Your task to perform on an android device: Open location settings Image 0: 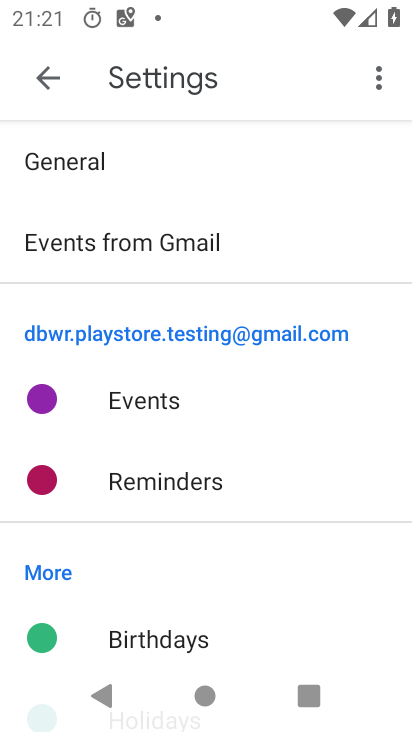
Step 0: press home button
Your task to perform on an android device: Open location settings Image 1: 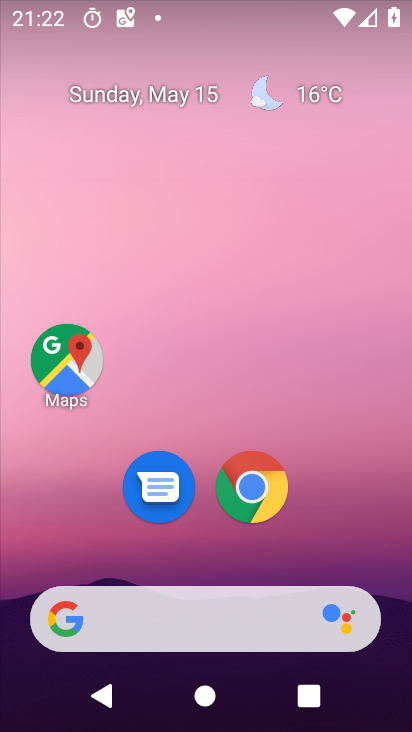
Step 1: drag from (394, 636) to (351, 192)
Your task to perform on an android device: Open location settings Image 2: 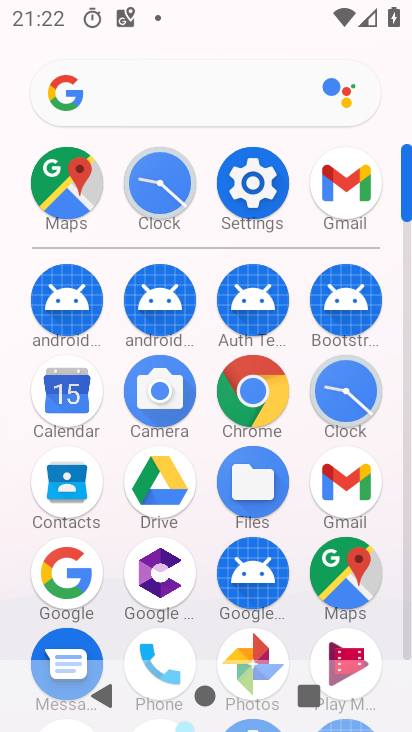
Step 2: click (247, 195)
Your task to perform on an android device: Open location settings Image 3: 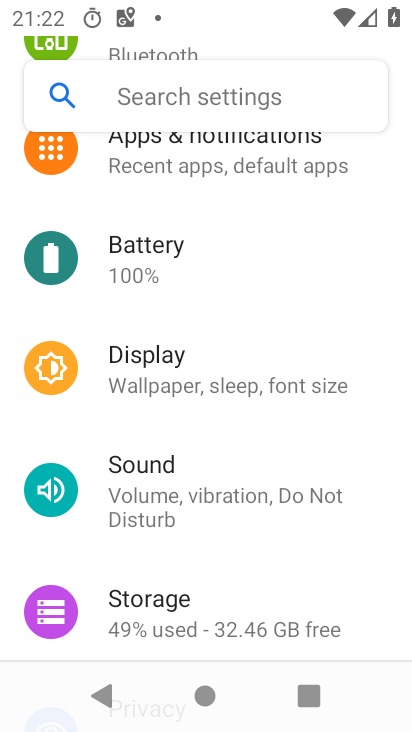
Step 3: drag from (375, 632) to (396, 295)
Your task to perform on an android device: Open location settings Image 4: 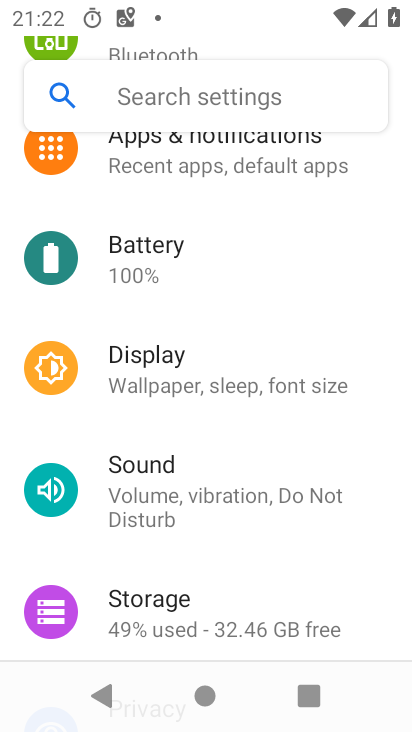
Step 4: drag from (365, 631) to (365, 367)
Your task to perform on an android device: Open location settings Image 5: 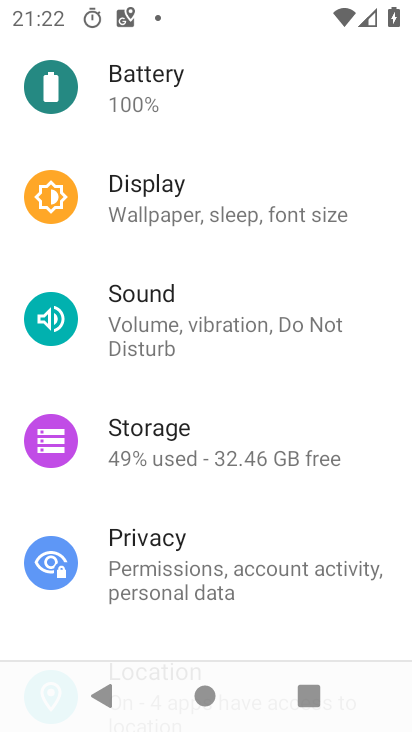
Step 5: drag from (367, 614) to (359, 403)
Your task to perform on an android device: Open location settings Image 6: 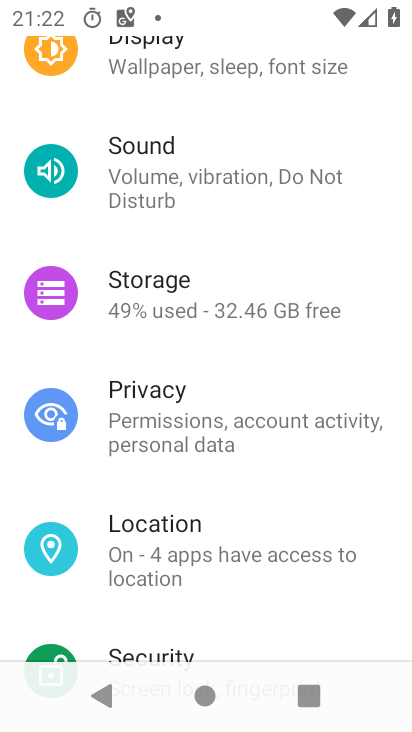
Step 6: drag from (339, 619) to (359, 315)
Your task to perform on an android device: Open location settings Image 7: 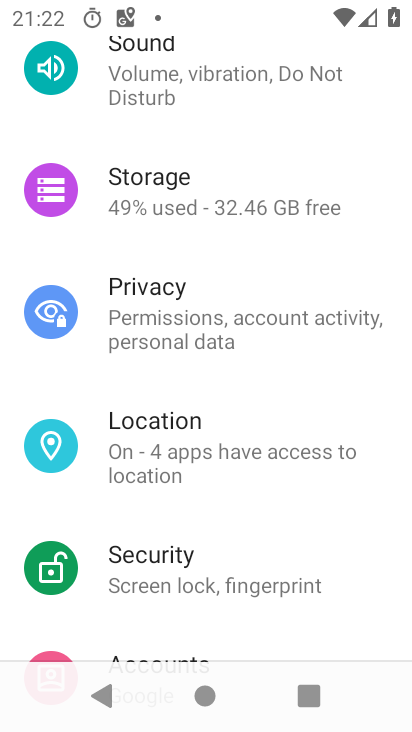
Step 7: click (223, 429)
Your task to perform on an android device: Open location settings Image 8: 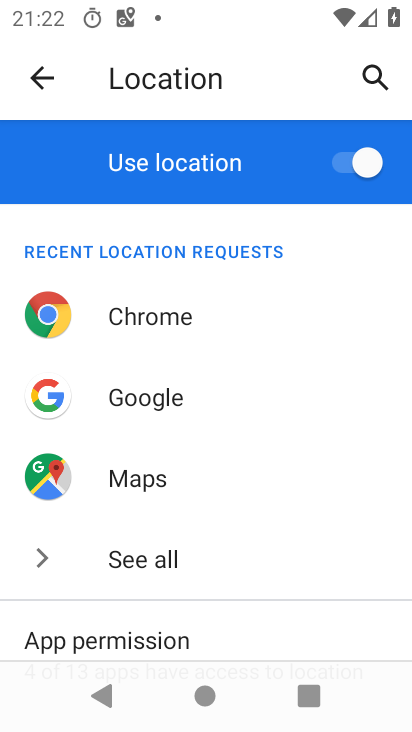
Step 8: task complete